Your task to perform on an android device: turn on wifi Image 0: 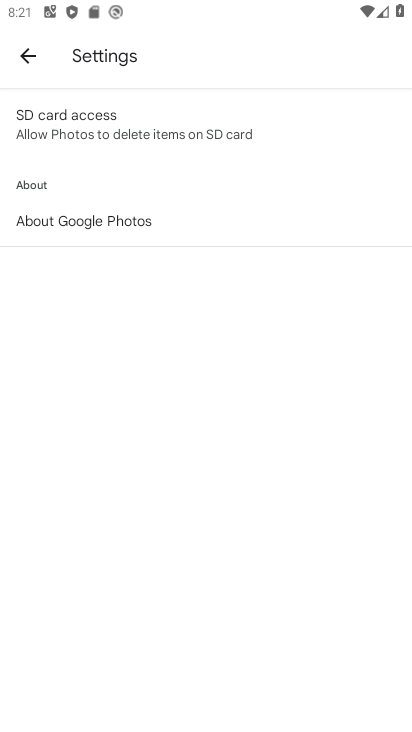
Step 0: press home button
Your task to perform on an android device: turn on wifi Image 1: 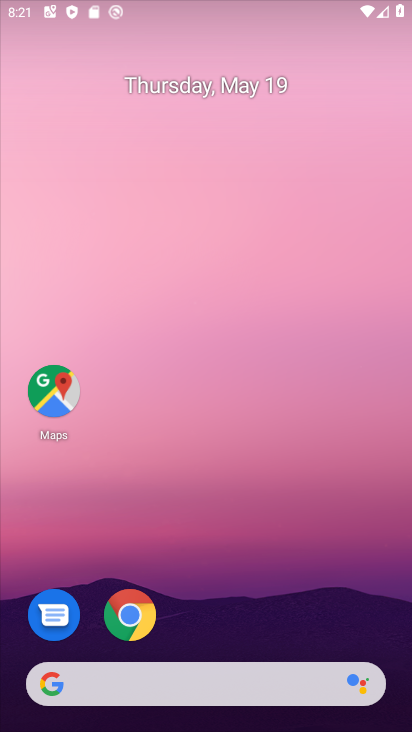
Step 1: drag from (211, 577) to (203, 71)
Your task to perform on an android device: turn on wifi Image 2: 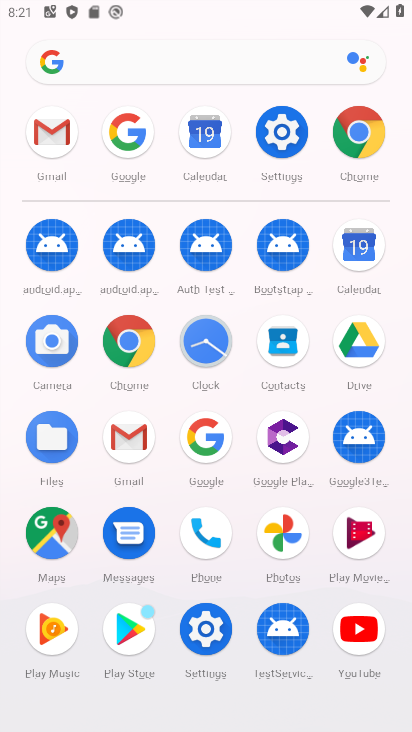
Step 2: click (280, 139)
Your task to perform on an android device: turn on wifi Image 3: 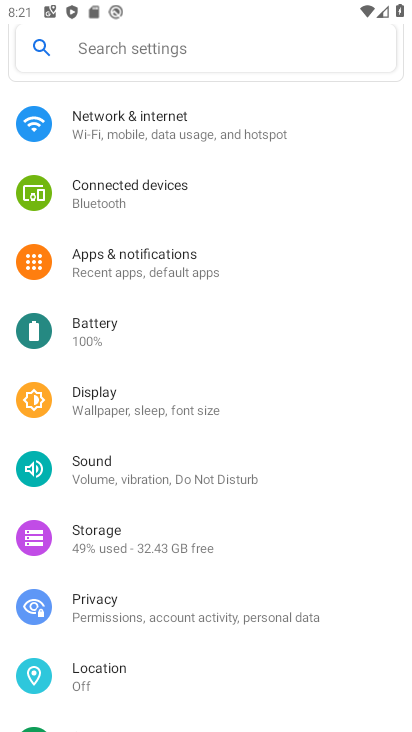
Step 3: click (130, 130)
Your task to perform on an android device: turn on wifi Image 4: 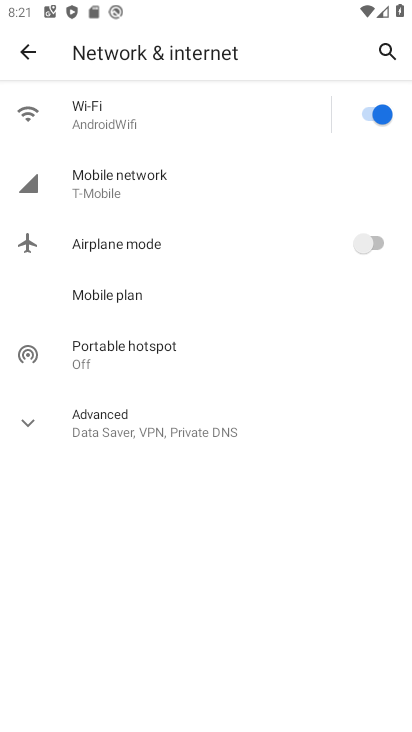
Step 4: task complete